Your task to perform on an android device: Set the phone to "Do not disturb". Image 0: 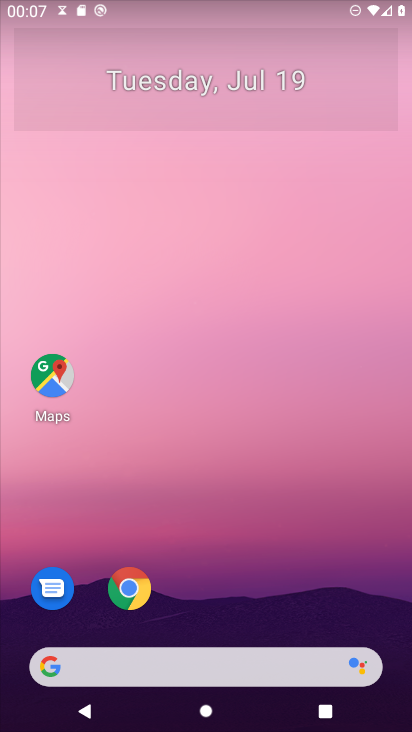
Step 0: drag from (244, 0) to (214, 385)
Your task to perform on an android device: Set the phone to "Do not disturb". Image 1: 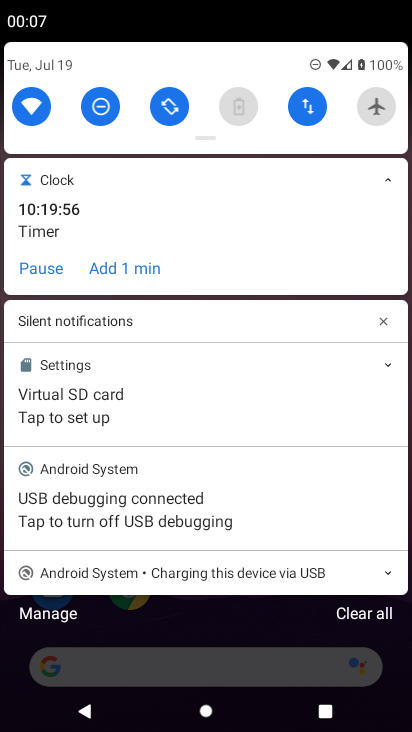
Step 1: task complete